Your task to perform on an android device: turn off data saver in the chrome app Image 0: 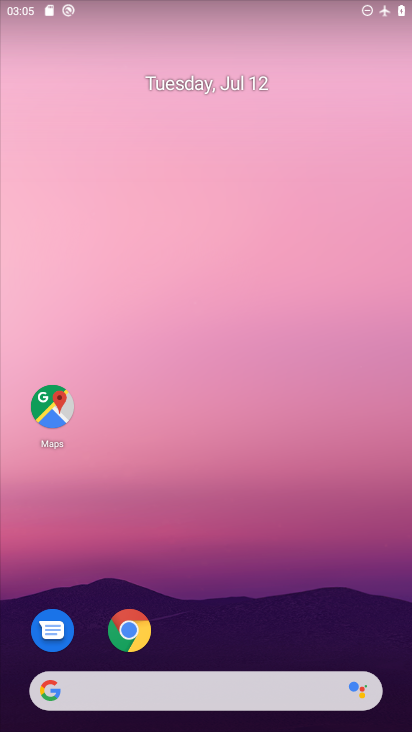
Step 0: click (127, 628)
Your task to perform on an android device: turn off data saver in the chrome app Image 1: 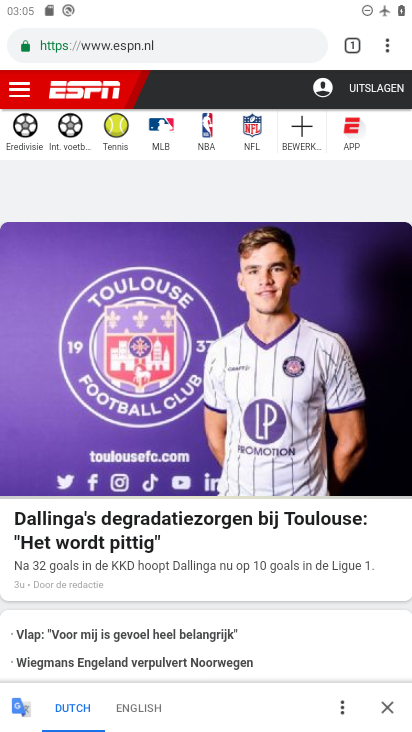
Step 1: click (386, 46)
Your task to perform on an android device: turn off data saver in the chrome app Image 2: 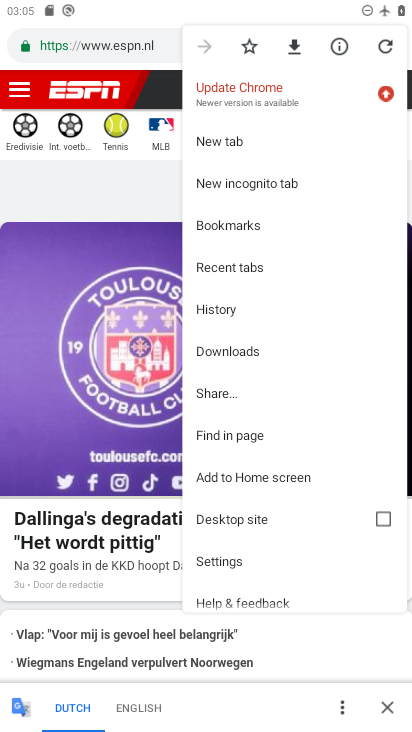
Step 2: click (232, 554)
Your task to perform on an android device: turn off data saver in the chrome app Image 3: 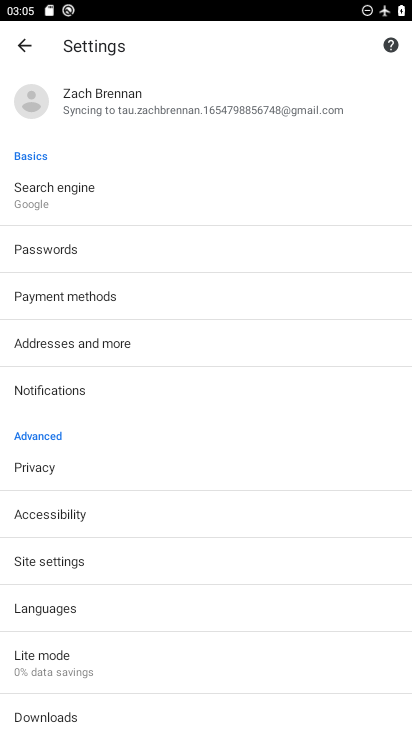
Step 3: click (63, 660)
Your task to perform on an android device: turn off data saver in the chrome app Image 4: 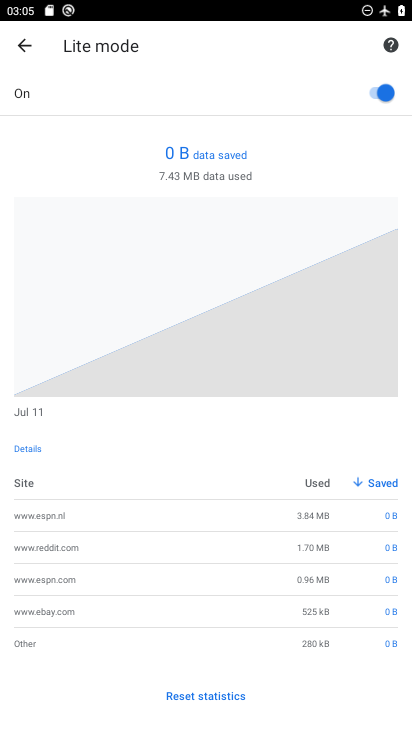
Step 4: click (372, 93)
Your task to perform on an android device: turn off data saver in the chrome app Image 5: 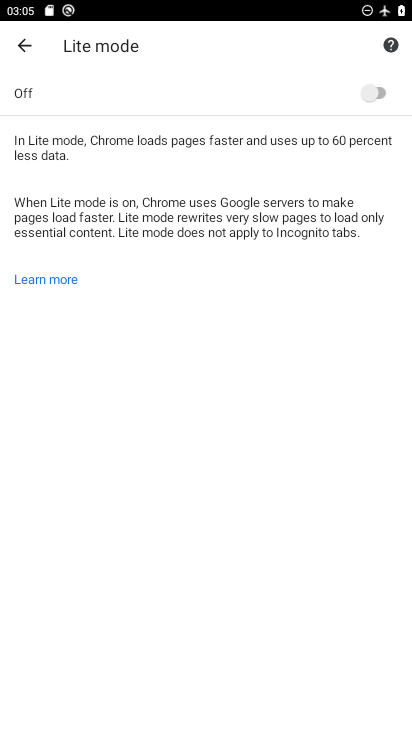
Step 5: task complete